Your task to perform on an android device: Search for seafood restaurants on Google Maps Image 0: 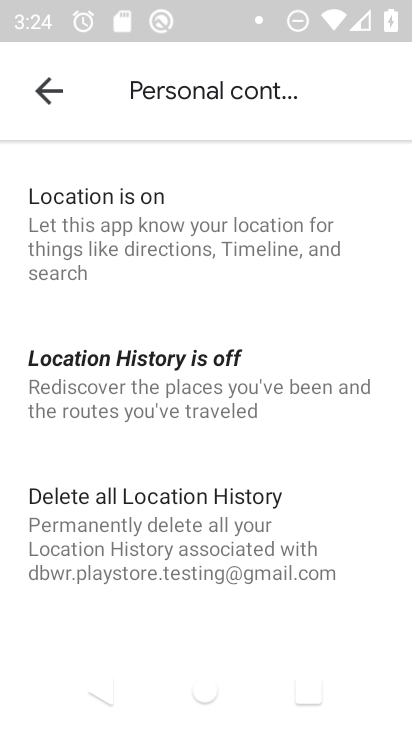
Step 0: click (40, 91)
Your task to perform on an android device: Search for seafood restaurants on Google Maps Image 1: 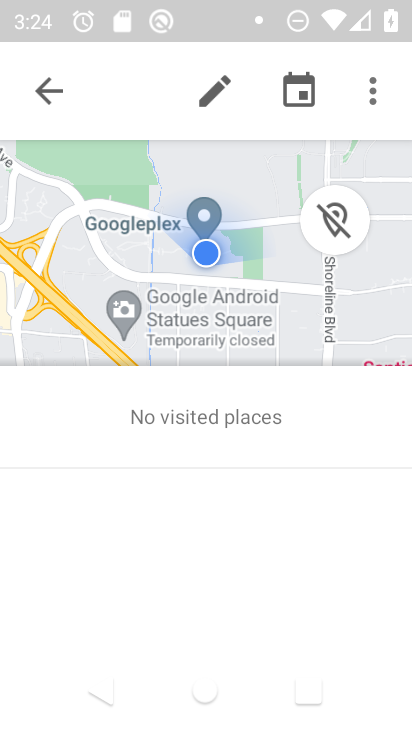
Step 1: click (46, 93)
Your task to perform on an android device: Search for seafood restaurants on Google Maps Image 2: 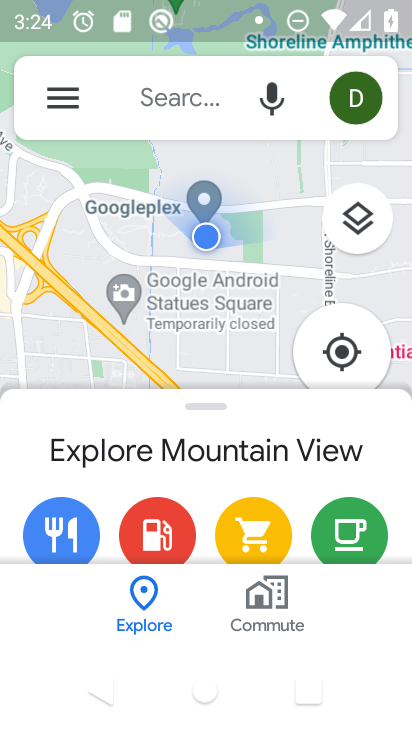
Step 2: click (145, 99)
Your task to perform on an android device: Search for seafood restaurants on Google Maps Image 3: 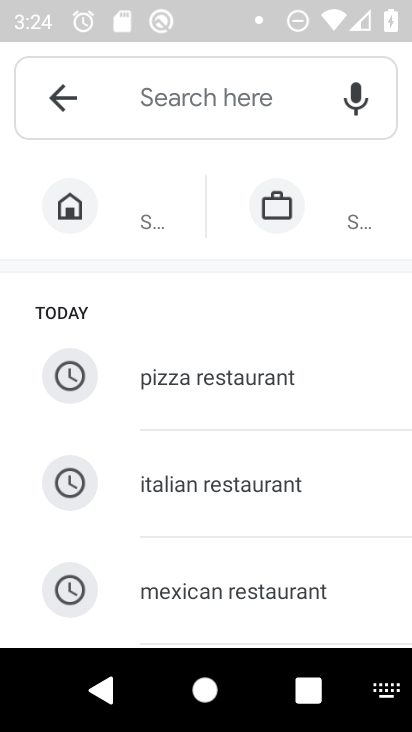
Step 3: type "seafood restaurant"
Your task to perform on an android device: Search for seafood restaurants on Google Maps Image 4: 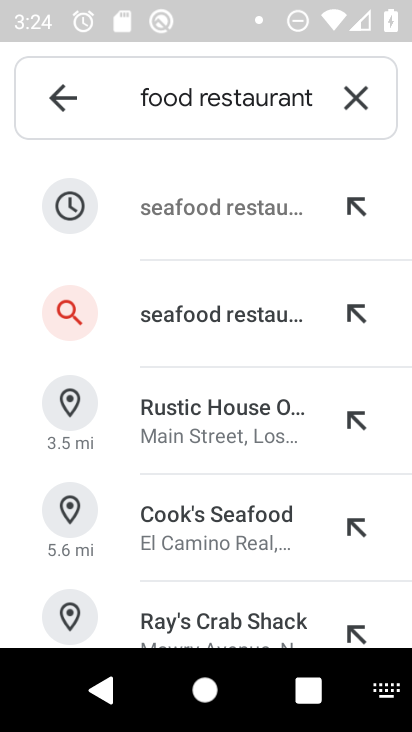
Step 4: click (187, 310)
Your task to perform on an android device: Search for seafood restaurants on Google Maps Image 5: 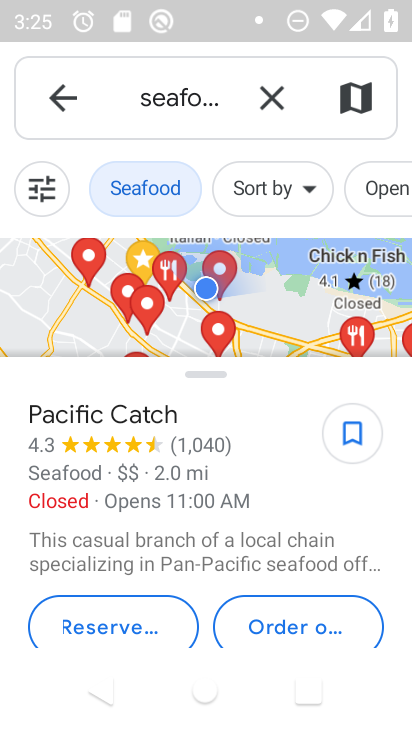
Step 5: task complete